Your task to perform on an android device: toggle translation in the chrome app Image 0: 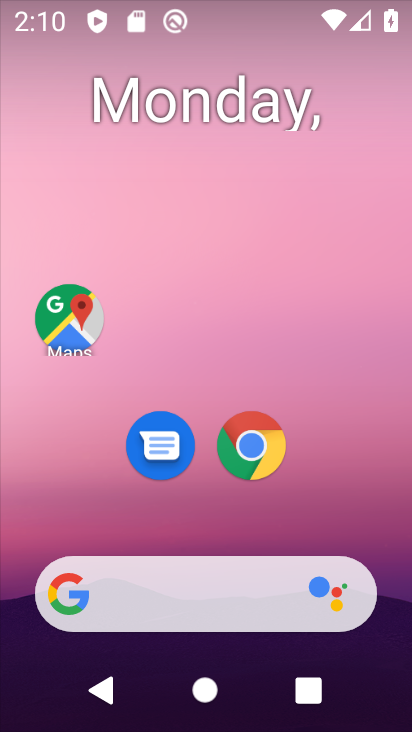
Step 0: click (259, 439)
Your task to perform on an android device: toggle translation in the chrome app Image 1: 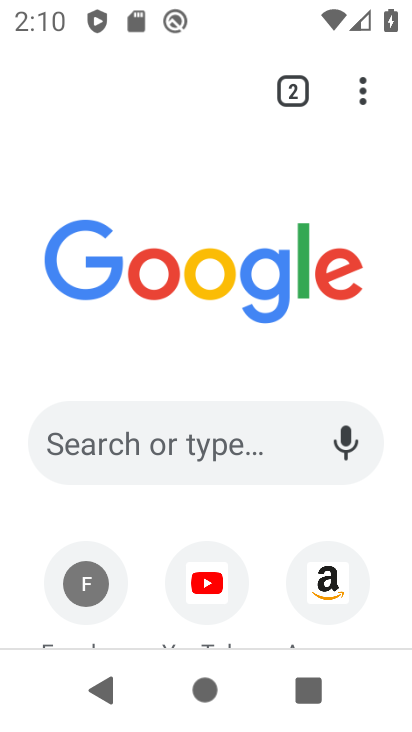
Step 1: click (375, 82)
Your task to perform on an android device: toggle translation in the chrome app Image 2: 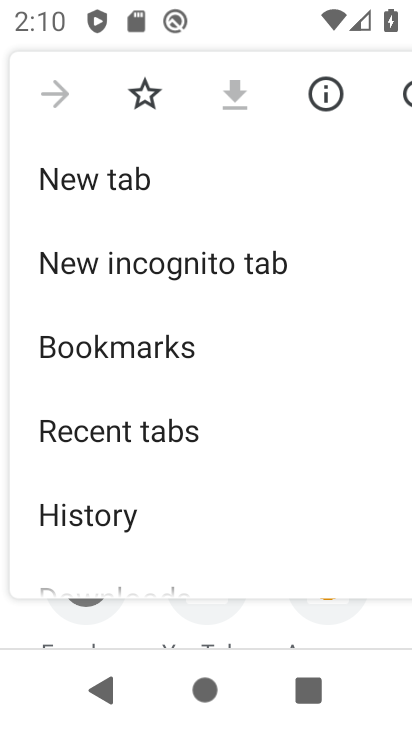
Step 2: drag from (101, 526) to (254, 146)
Your task to perform on an android device: toggle translation in the chrome app Image 3: 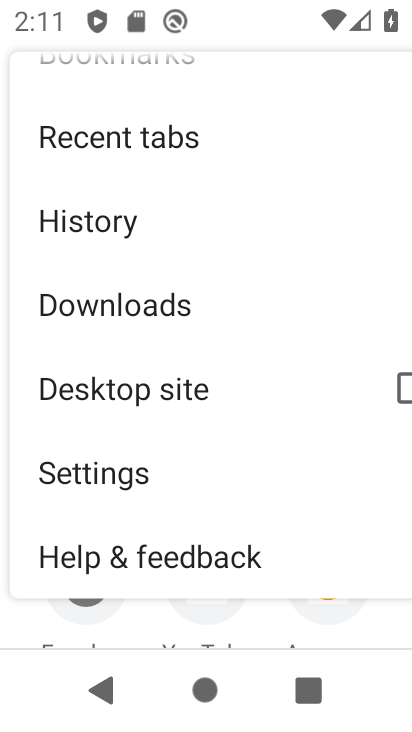
Step 3: click (107, 496)
Your task to perform on an android device: toggle translation in the chrome app Image 4: 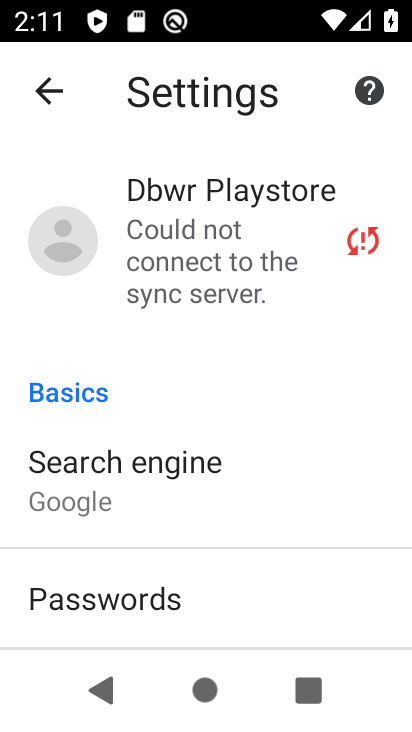
Step 4: drag from (186, 632) to (243, 149)
Your task to perform on an android device: toggle translation in the chrome app Image 5: 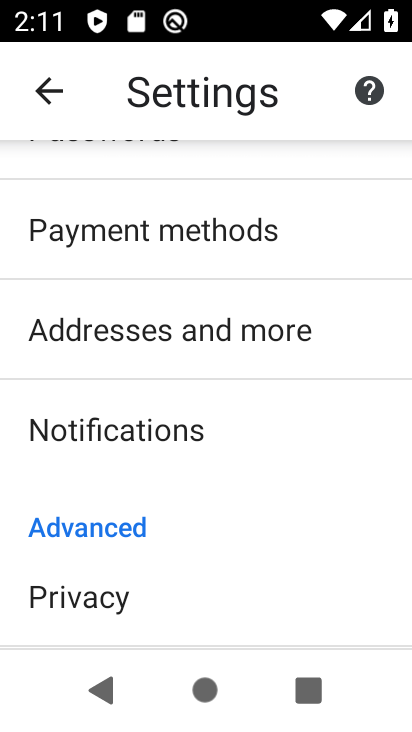
Step 5: drag from (212, 601) to (255, 254)
Your task to perform on an android device: toggle translation in the chrome app Image 6: 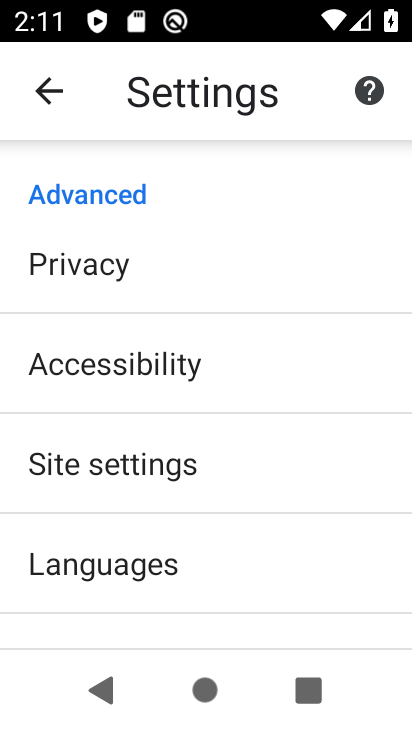
Step 6: click (166, 545)
Your task to perform on an android device: toggle translation in the chrome app Image 7: 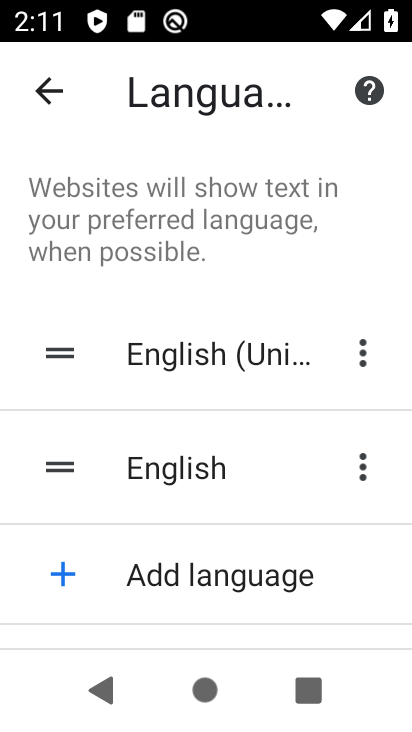
Step 7: drag from (162, 630) to (270, 274)
Your task to perform on an android device: toggle translation in the chrome app Image 8: 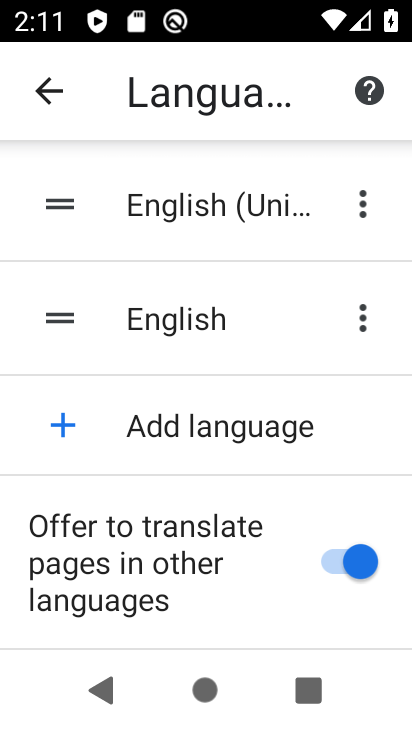
Step 8: click (331, 556)
Your task to perform on an android device: toggle translation in the chrome app Image 9: 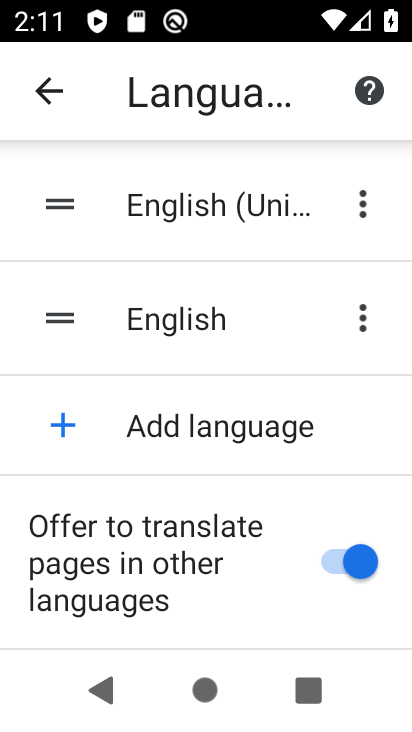
Step 9: click (331, 556)
Your task to perform on an android device: toggle translation in the chrome app Image 10: 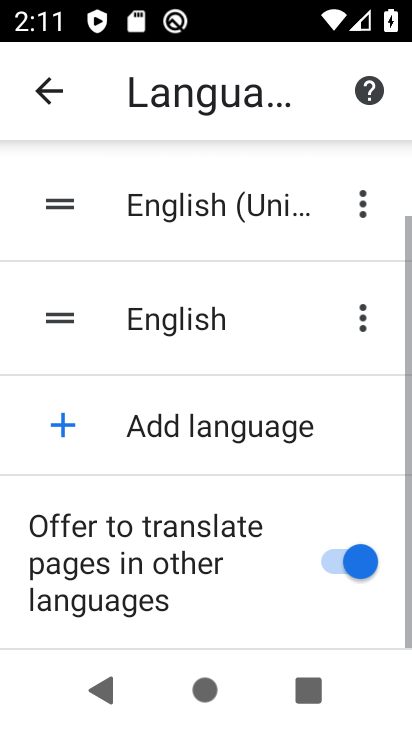
Step 10: task complete